Your task to perform on an android device: turn on data saver in the chrome app Image 0: 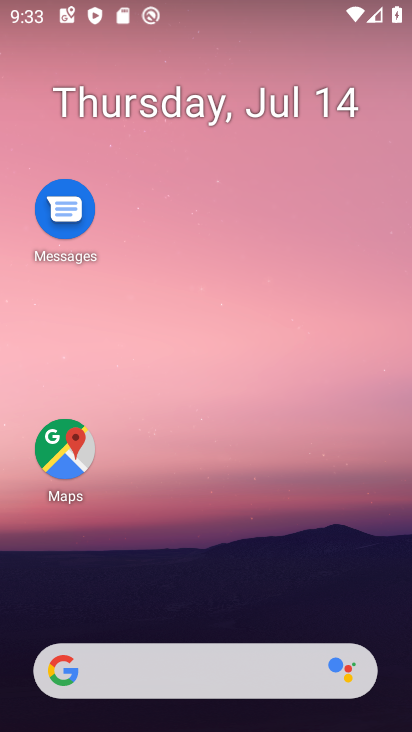
Step 0: drag from (199, 626) to (248, 17)
Your task to perform on an android device: turn on data saver in the chrome app Image 1: 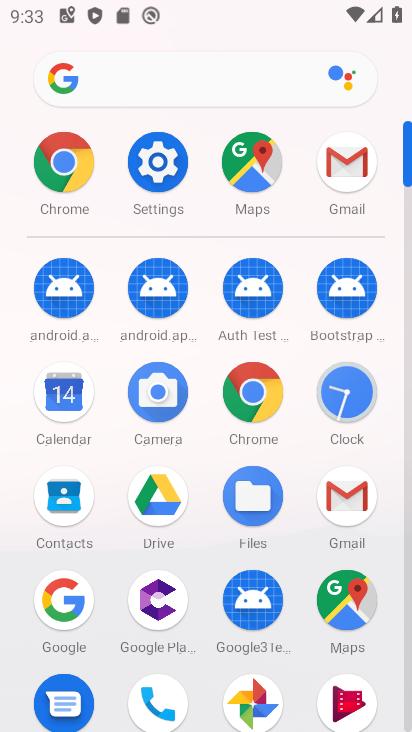
Step 1: click (239, 377)
Your task to perform on an android device: turn on data saver in the chrome app Image 2: 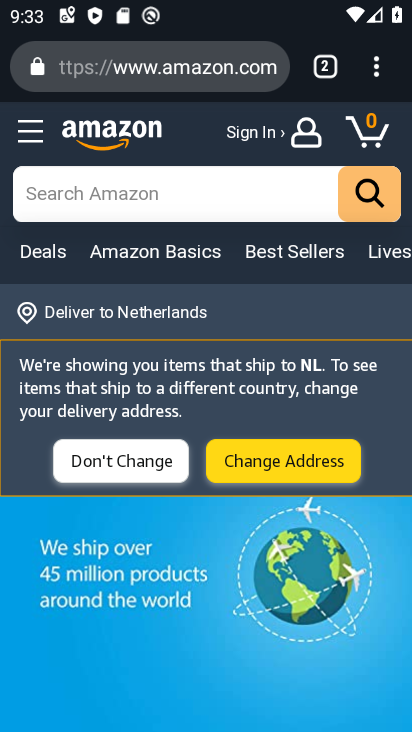
Step 2: click (371, 66)
Your task to perform on an android device: turn on data saver in the chrome app Image 3: 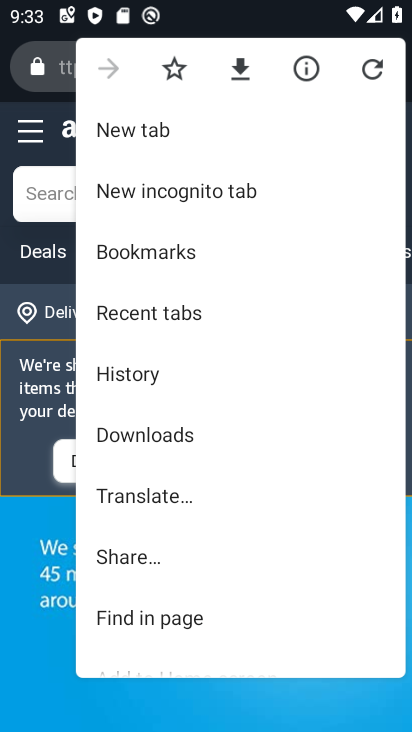
Step 3: drag from (260, 502) to (219, 123)
Your task to perform on an android device: turn on data saver in the chrome app Image 4: 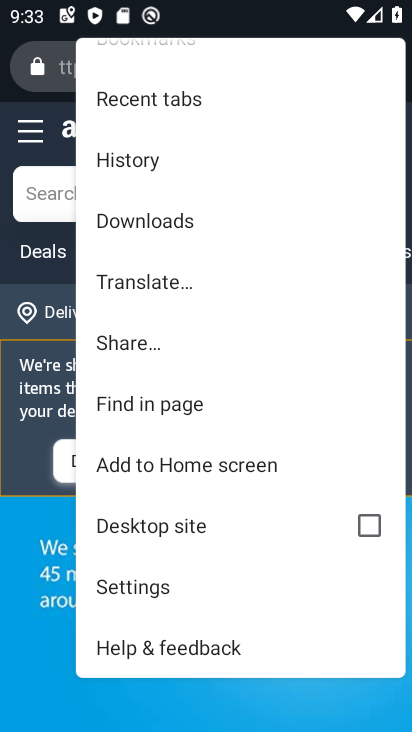
Step 4: click (133, 574)
Your task to perform on an android device: turn on data saver in the chrome app Image 5: 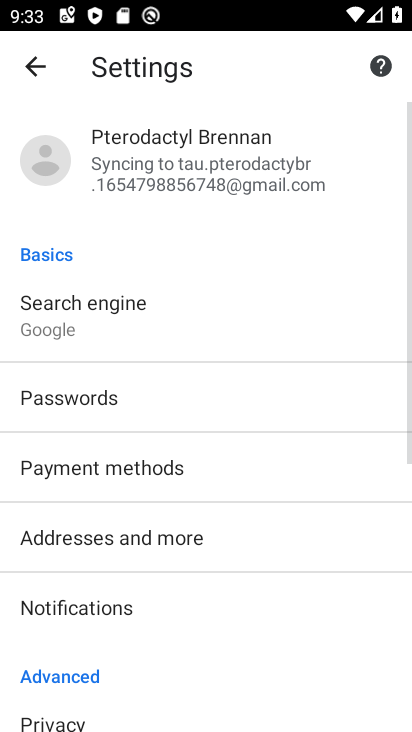
Step 5: drag from (133, 574) to (36, 12)
Your task to perform on an android device: turn on data saver in the chrome app Image 6: 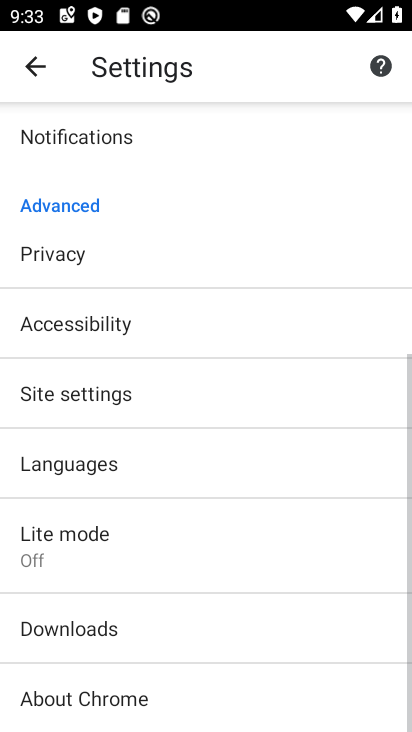
Step 6: click (90, 523)
Your task to perform on an android device: turn on data saver in the chrome app Image 7: 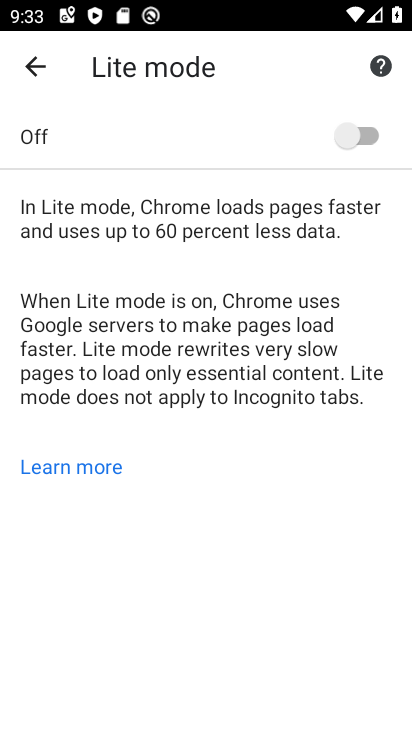
Step 7: click (349, 132)
Your task to perform on an android device: turn on data saver in the chrome app Image 8: 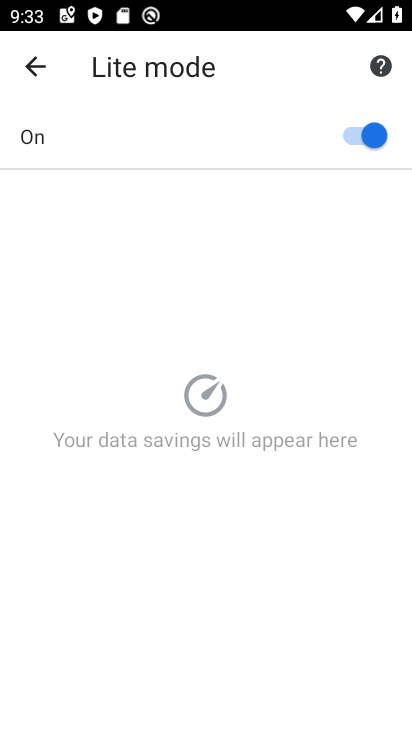
Step 8: task complete